Your task to perform on an android device: check google app version Image 0: 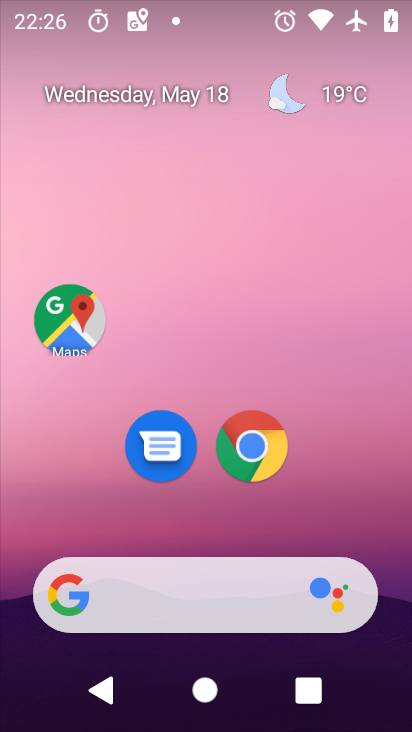
Step 0: press home button
Your task to perform on an android device: check google app version Image 1: 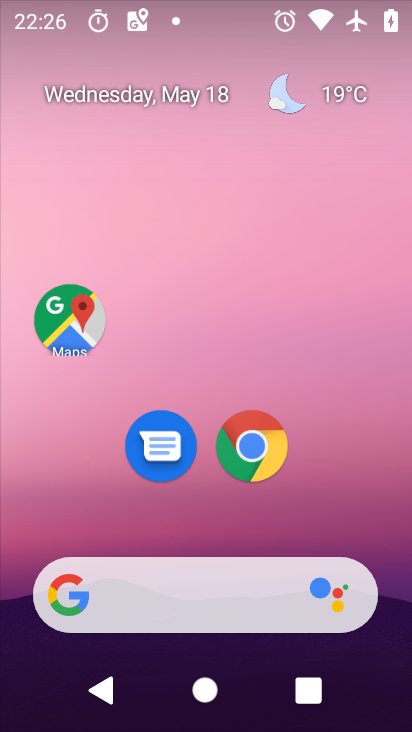
Step 1: drag from (193, 568) to (340, 169)
Your task to perform on an android device: check google app version Image 2: 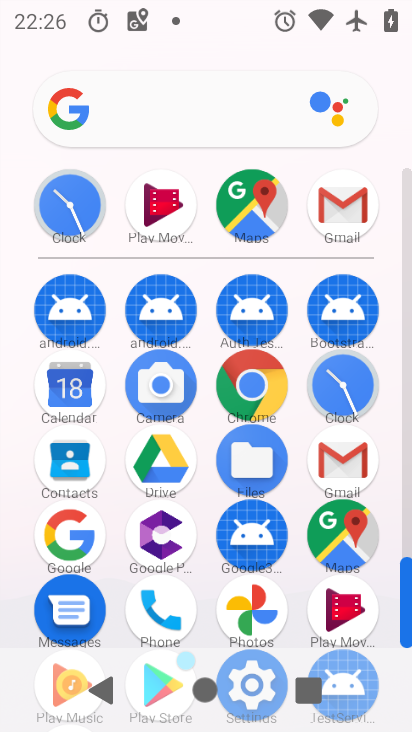
Step 2: click (68, 536)
Your task to perform on an android device: check google app version Image 3: 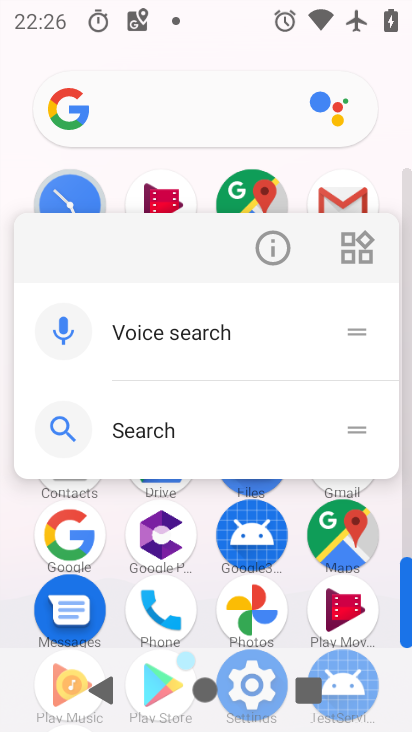
Step 3: click (254, 256)
Your task to perform on an android device: check google app version Image 4: 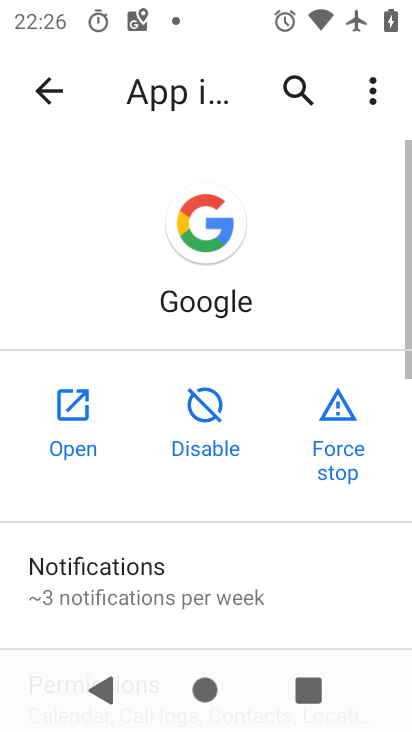
Step 4: drag from (188, 626) to (345, 162)
Your task to perform on an android device: check google app version Image 5: 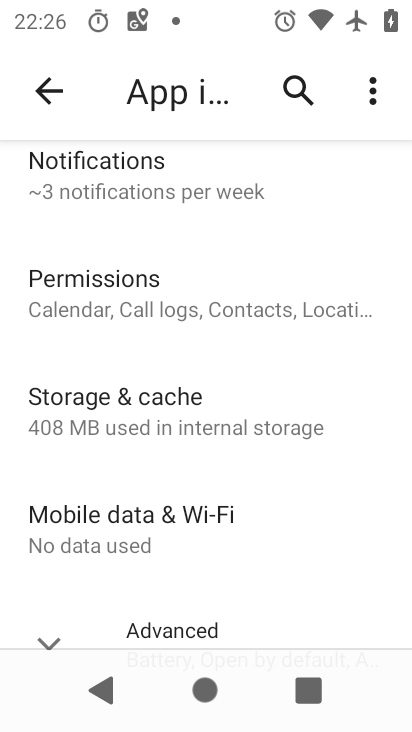
Step 5: drag from (214, 583) to (329, 146)
Your task to perform on an android device: check google app version Image 6: 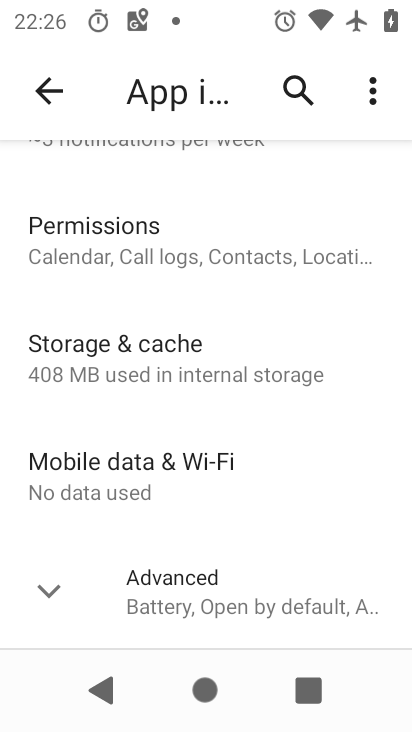
Step 6: click (146, 582)
Your task to perform on an android device: check google app version Image 7: 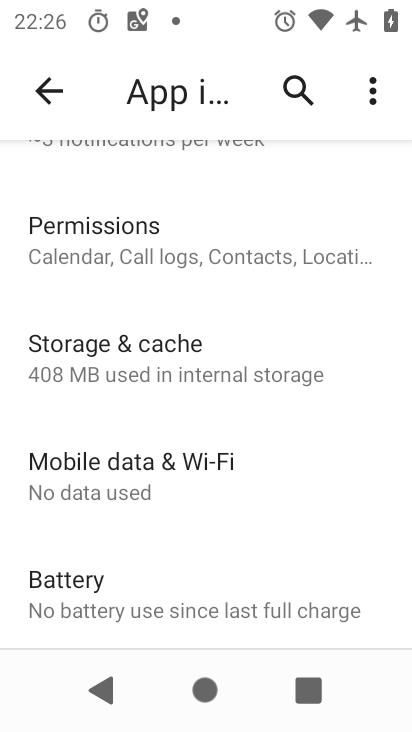
Step 7: task complete